Your task to perform on an android device: Open Yahoo.com Image 0: 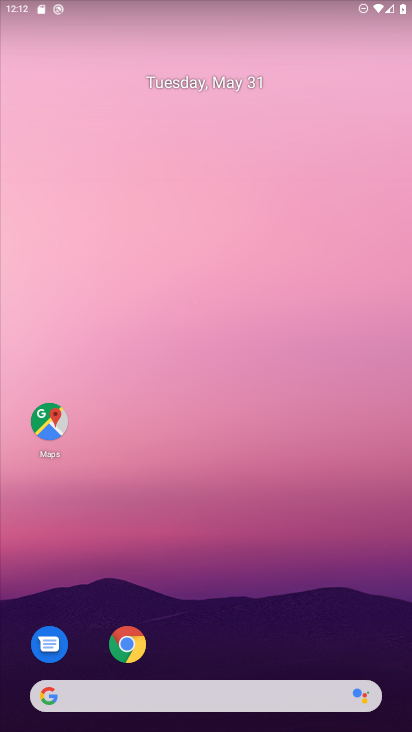
Step 0: drag from (153, 662) to (238, 376)
Your task to perform on an android device: Open Yahoo.com Image 1: 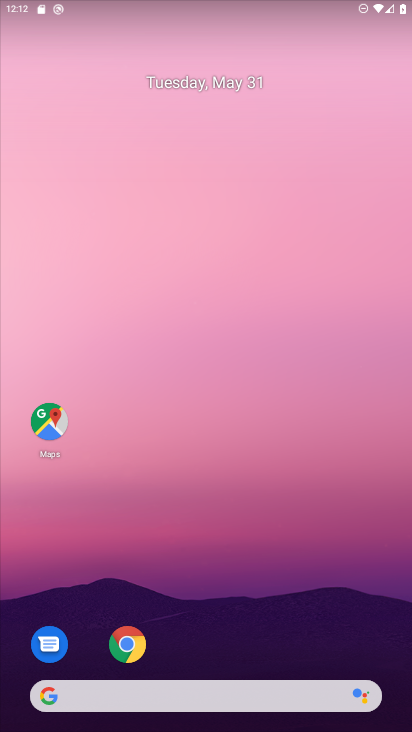
Step 1: drag from (232, 561) to (311, 21)
Your task to perform on an android device: Open Yahoo.com Image 2: 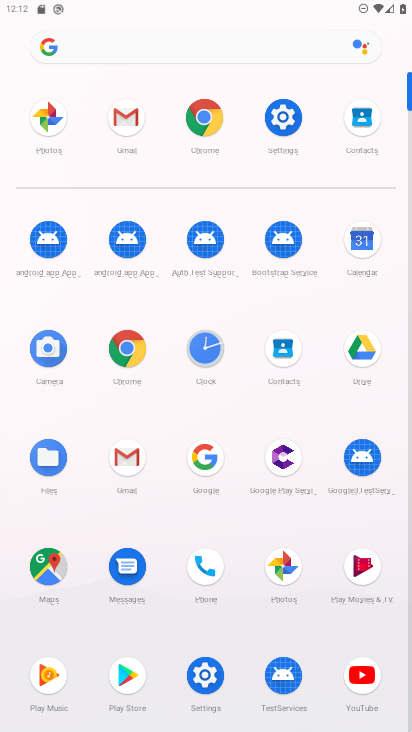
Step 2: click (176, 45)
Your task to perform on an android device: Open Yahoo.com Image 3: 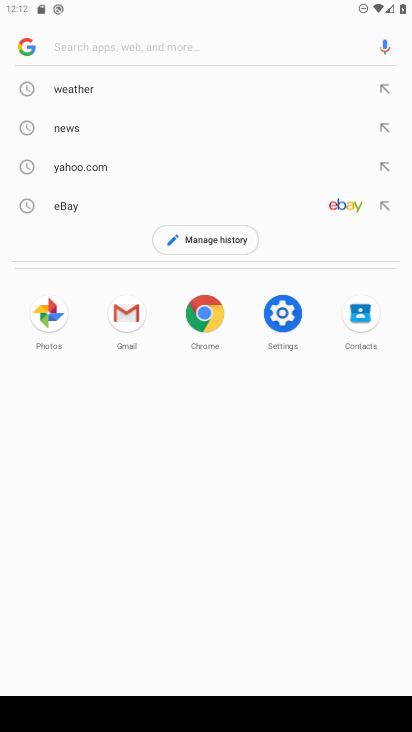
Step 3: click (55, 178)
Your task to perform on an android device: Open Yahoo.com Image 4: 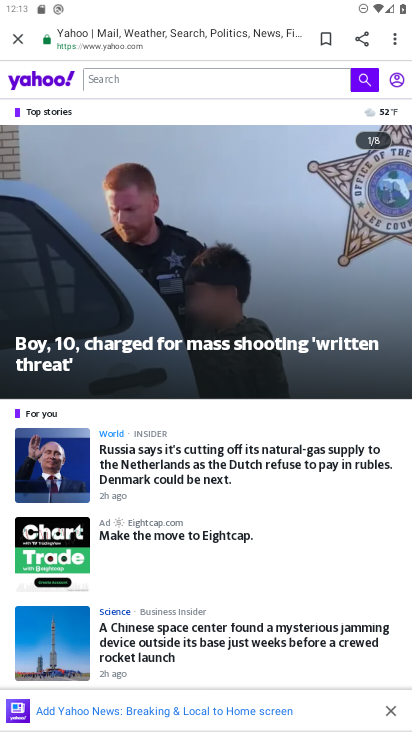
Step 4: task complete